Your task to perform on an android device: Open location settings Image 0: 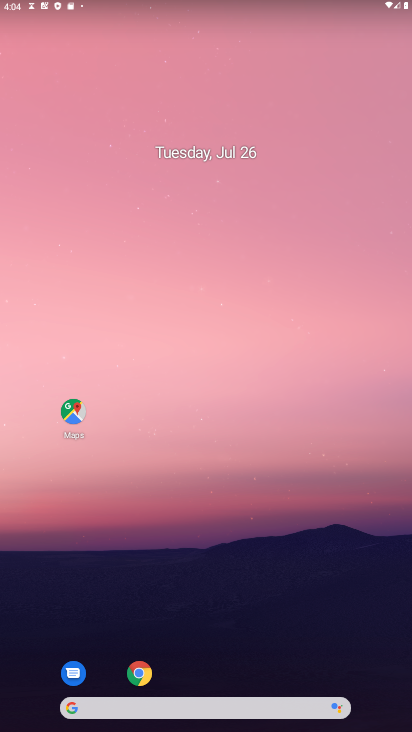
Step 0: drag from (200, 705) to (172, 227)
Your task to perform on an android device: Open location settings Image 1: 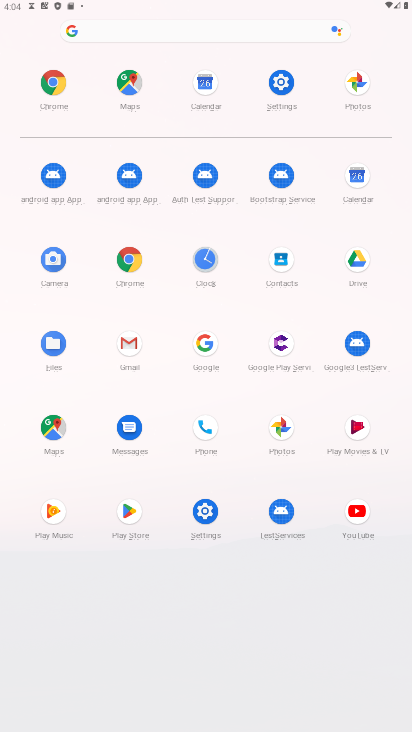
Step 1: click (280, 83)
Your task to perform on an android device: Open location settings Image 2: 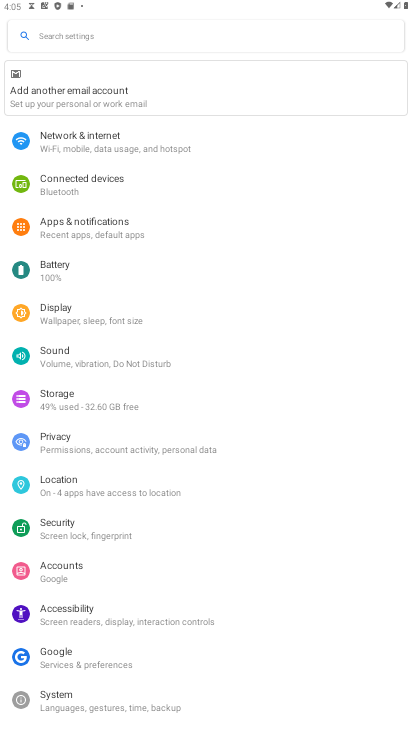
Step 2: click (77, 481)
Your task to perform on an android device: Open location settings Image 3: 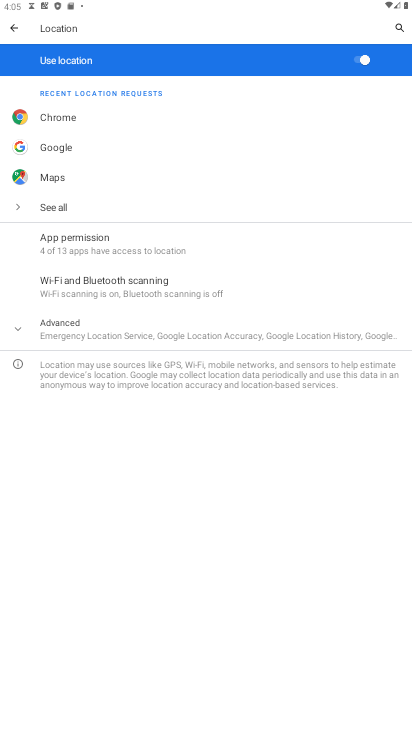
Step 3: task complete